Your task to perform on an android device: empty trash in google photos Image 0: 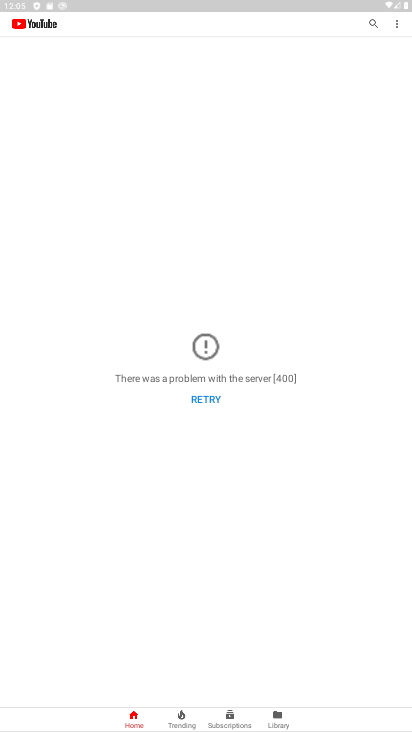
Step 0: press home button
Your task to perform on an android device: empty trash in google photos Image 1: 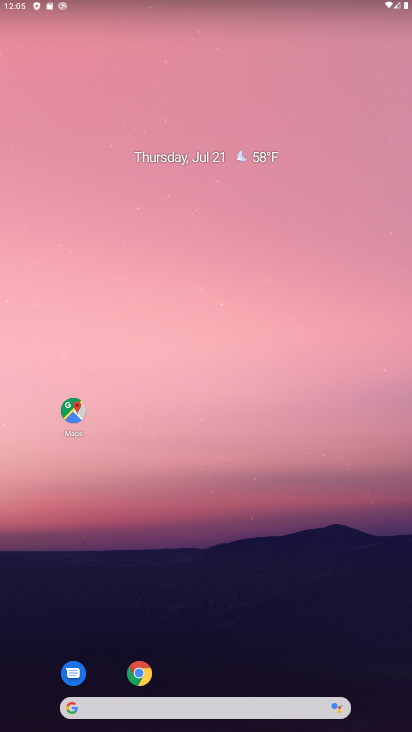
Step 1: drag from (241, 710) to (222, 262)
Your task to perform on an android device: empty trash in google photos Image 2: 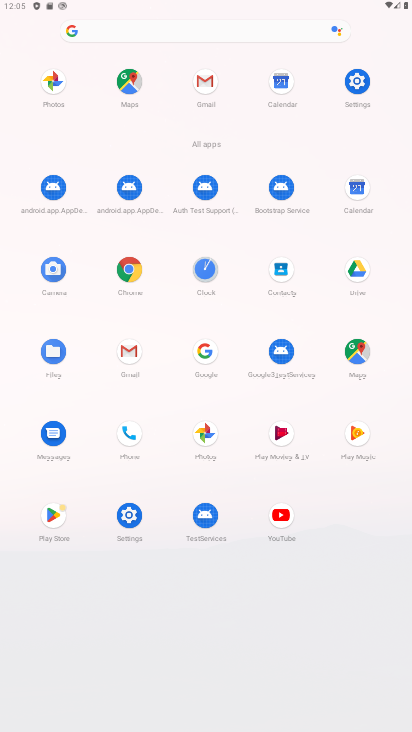
Step 2: click (201, 433)
Your task to perform on an android device: empty trash in google photos Image 3: 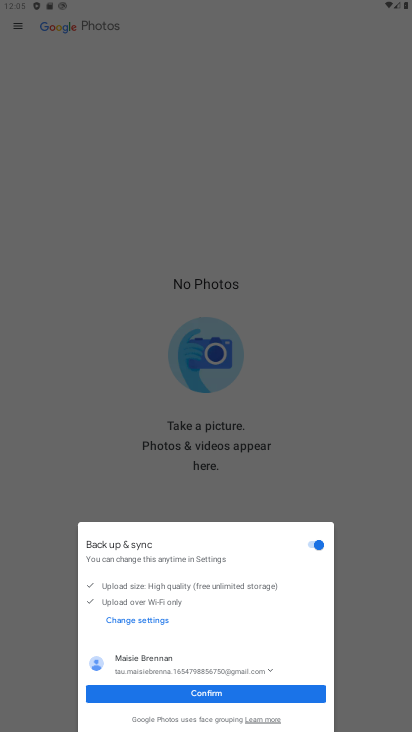
Step 3: click (261, 690)
Your task to perform on an android device: empty trash in google photos Image 4: 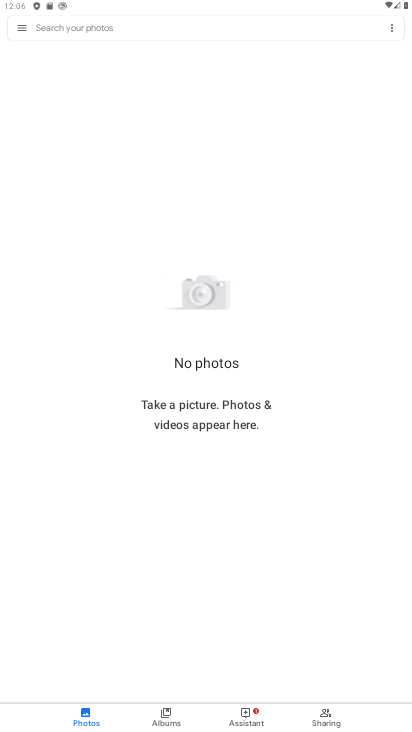
Step 4: click (19, 18)
Your task to perform on an android device: empty trash in google photos Image 5: 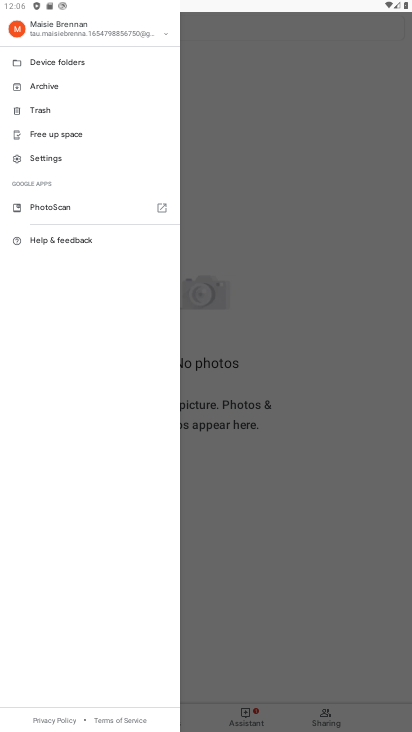
Step 5: click (47, 107)
Your task to perform on an android device: empty trash in google photos Image 6: 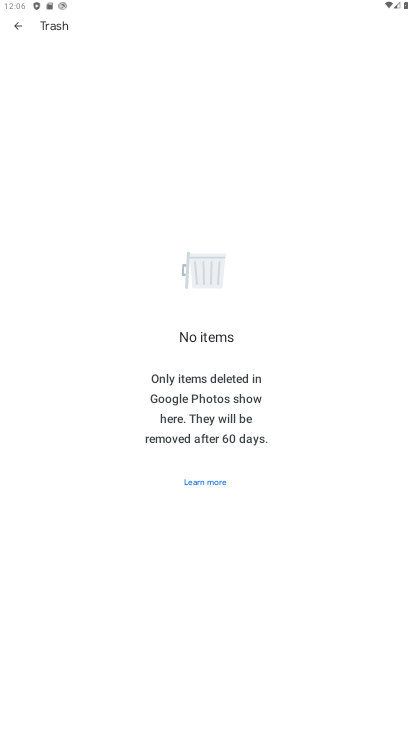
Step 6: task complete